Your task to perform on an android device: toggle translation in the chrome app Image 0: 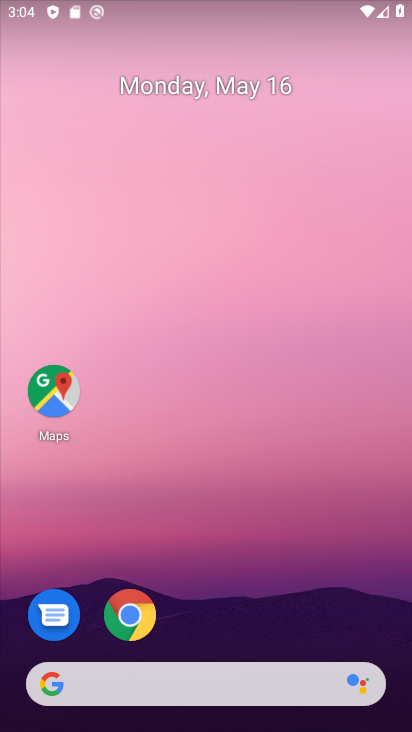
Step 0: drag from (219, 599) to (250, 62)
Your task to perform on an android device: toggle translation in the chrome app Image 1: 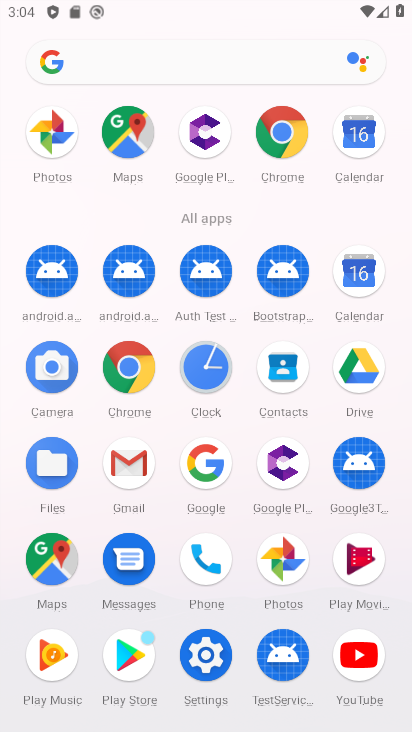
Step 1: click (280, 124)
Your task to perform on an android device: toggle translation in the chrome app Image 2: 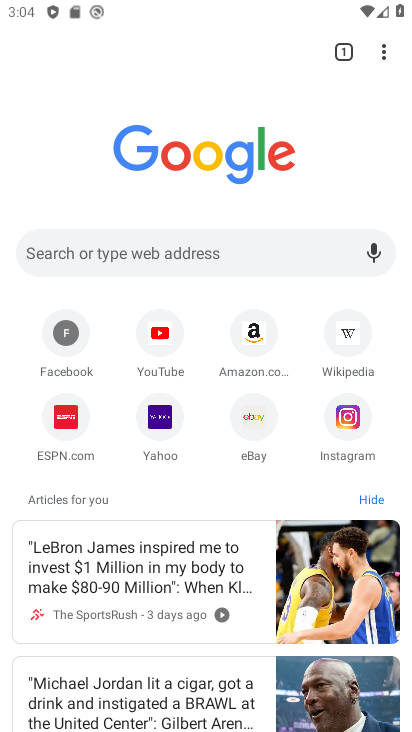
Step 2: click (380, 59)
Your task to perform on an android device: toggle translation in the chrome app Image 3: 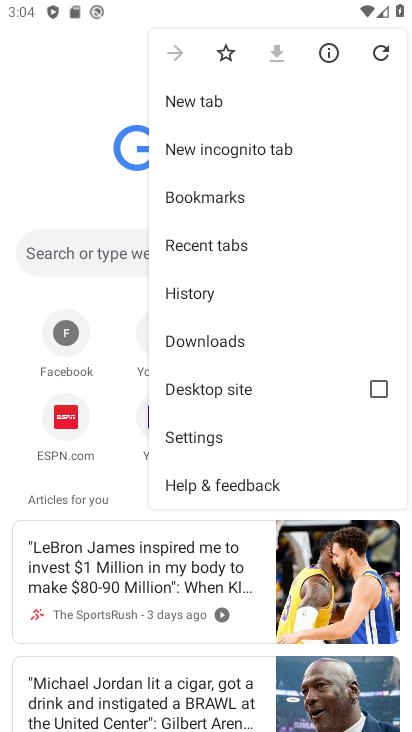
Step 3: click (219, 438)
Your task to perform on an android device: toggle translation in the chrome app Image 4: 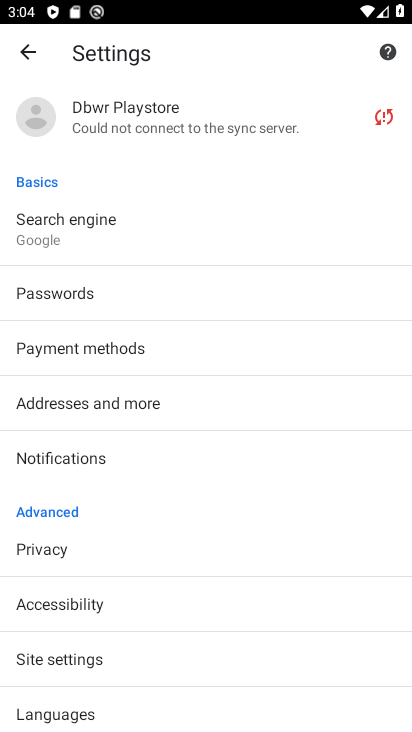
Step 4: drag from (152, 666) to (162, 461)
Your task to perform on an android device: toggle translation in the chrome app Image 5: 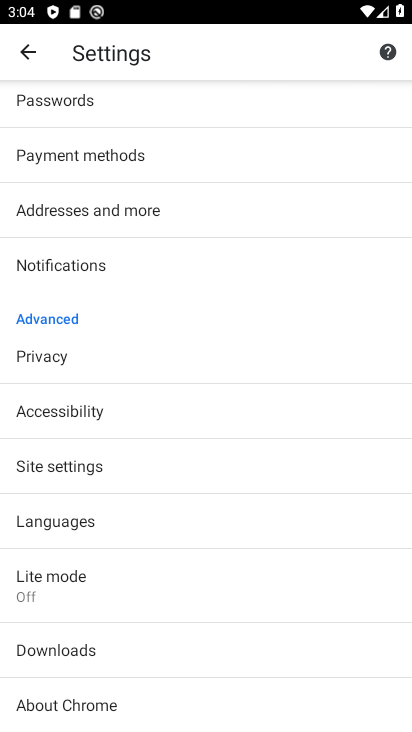
Step 5: click (164, 519)
Your task to perform on an android device: toggle translation in the chrome app Image 6: 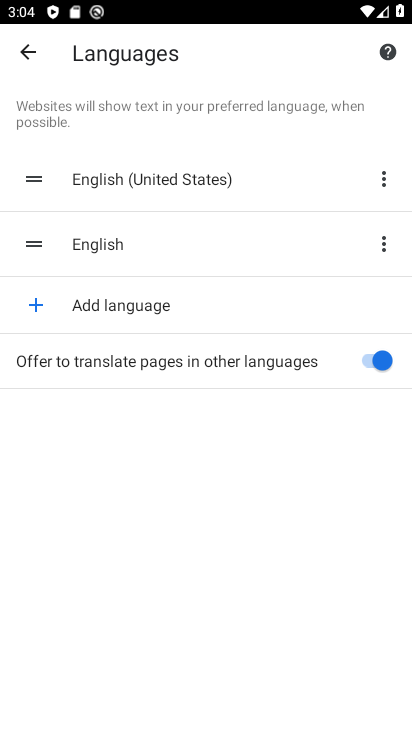
Step 6: click (363, 351)
Your task to perform on an android device: toggle translation in the chrome app Image 7: 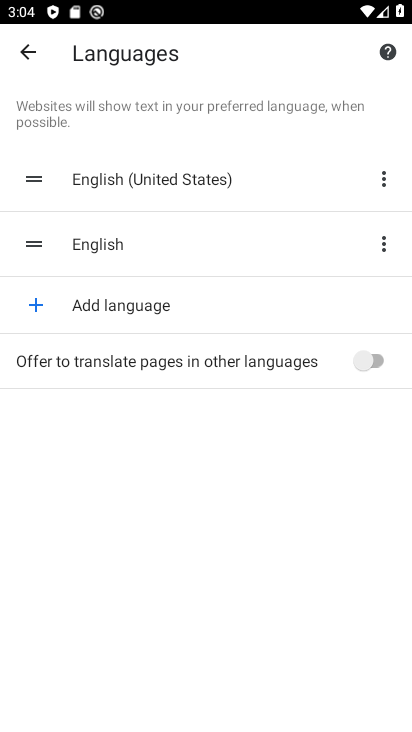
Step 7: task complete